Your task to perform on an android device: Show me the alarms in the clock app Image 0: 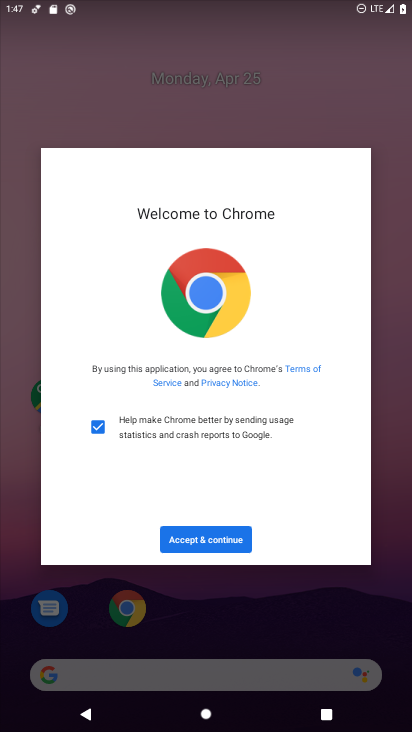
Step 0: press home button
Your task to perform on an android device: Show me the alarms in the clock app Image 1: 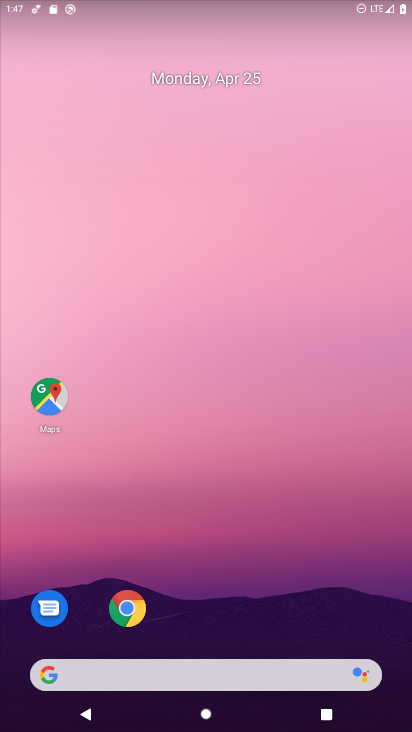
Step 1: drag from (339, 624) to (248, 39)
Your task to perform on an android device: Show me the alarms in the clock app Image 2: 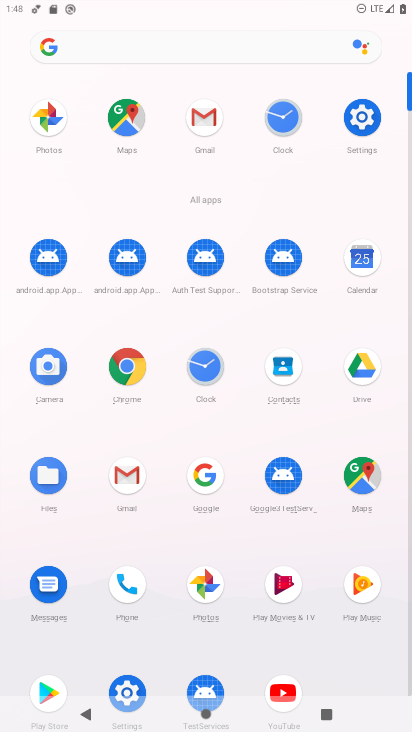
Step 2: click (214, 382)
Your task to perform on an android device: Show me the alarms in the clock app Image 3: 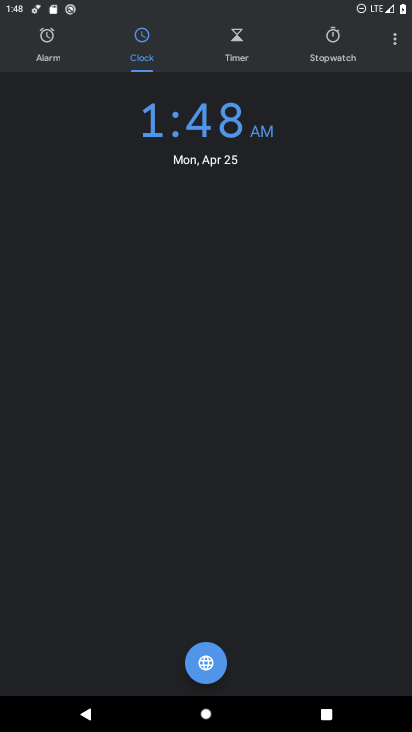
Step 3: click (40, 45)
Your task to perform on an android device: Show me the alarms in the clock app Image 4: 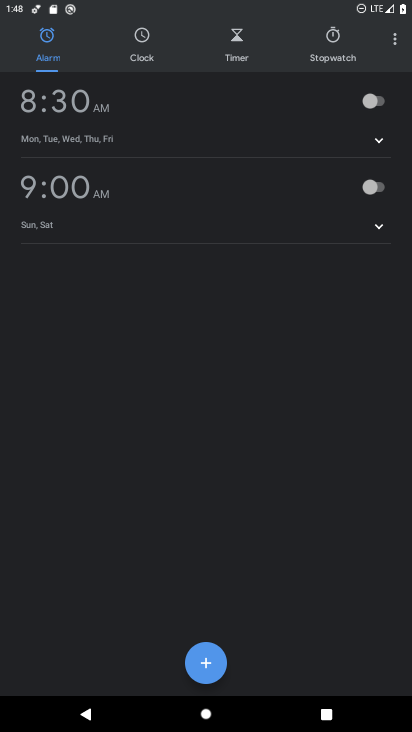
Step 4: task complete